Your task to perform on an android device: Go to Google maps Image 0: 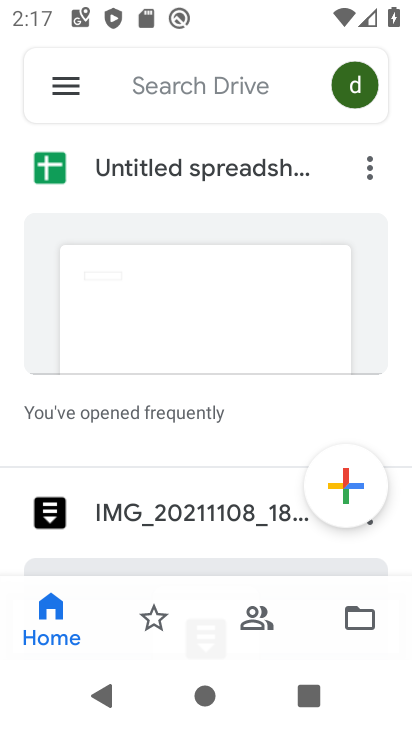
Step 0: press home button
Your task to perform on an android device: Go to Google maps Image 1: 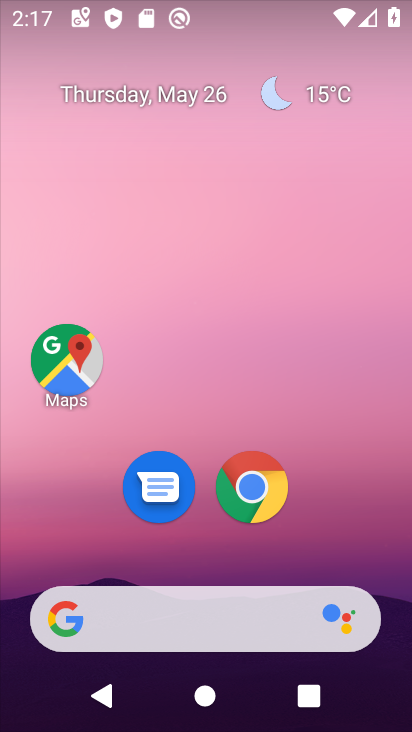
Step 1: click (221, 576)
Your task to perform on an android device: Go to Google maps Image 2: 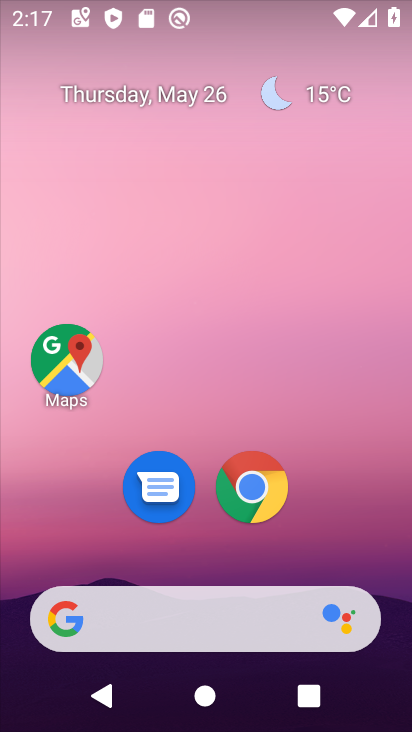
Step 2: click (79, 385)
Your task to perform on an android device: Go to Google maps Image 3: 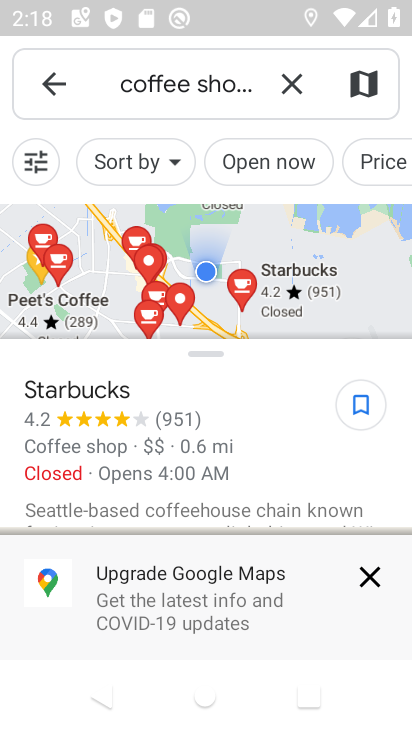
Step 3: task complete